Your task to perform on an android device: Open display settings Image 0: 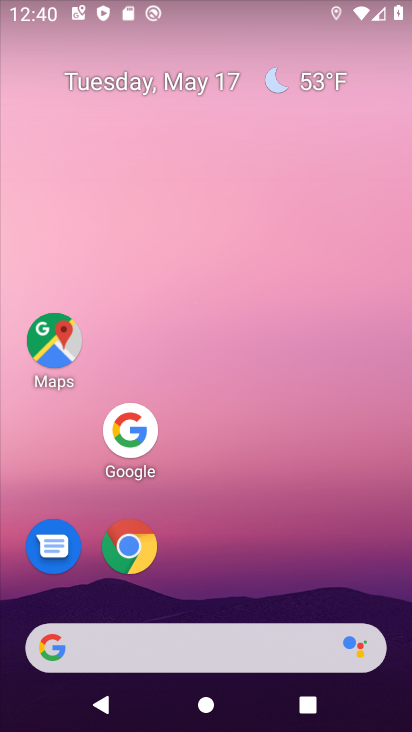
Step 0: drag from (311, 540) to (262, 105)
Your task to perform on an android device: Open display settings Image 1: 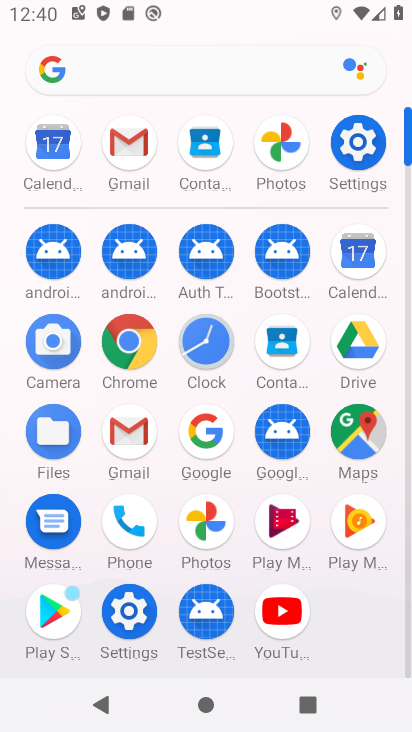
Step 1: click (362, 133)
Your task to perform on an android device: Open display settings Image 2: 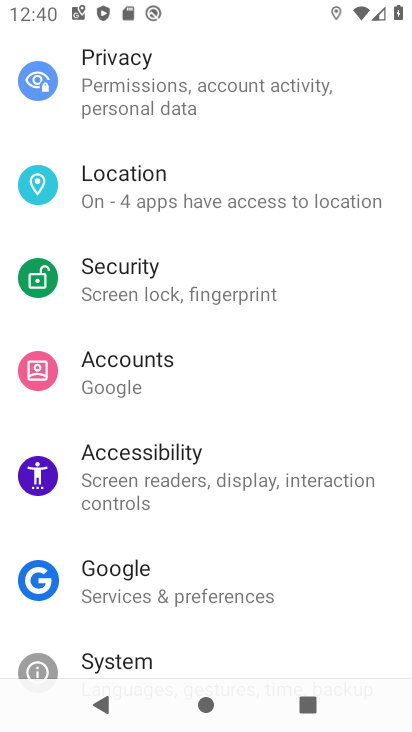
Step 2: drag from (183, 274) to (212, 608)
Your task to perform on an android device: Open display settings Image 3: 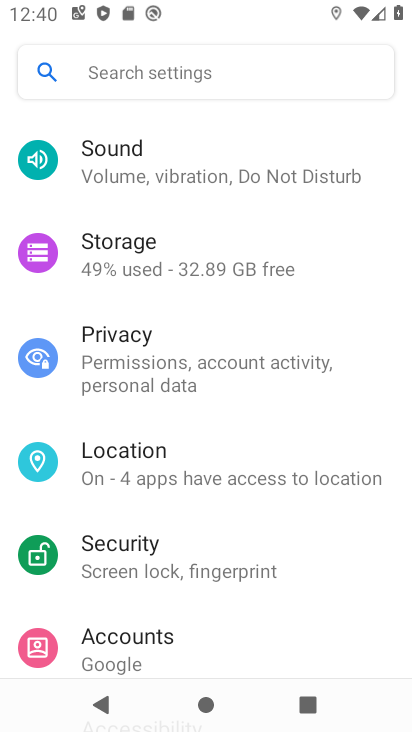
Step 3: drag from (157, 214) to (214, 593)
Your task to perform on an android device: Open display settings Image 4: 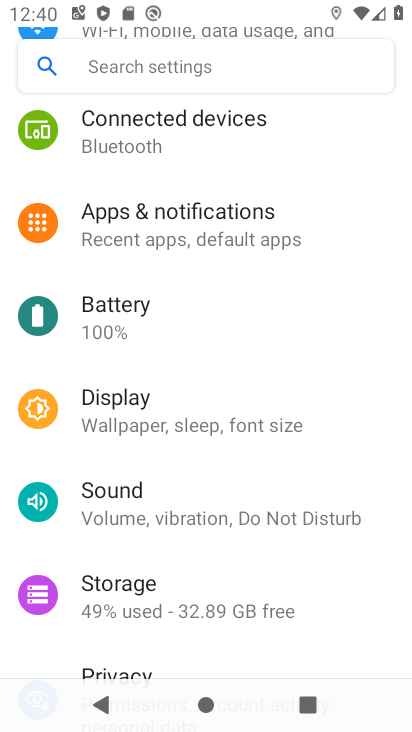
Step 4: click (157, 427)
Your task to perform on an android device: Open display settings Image 5: 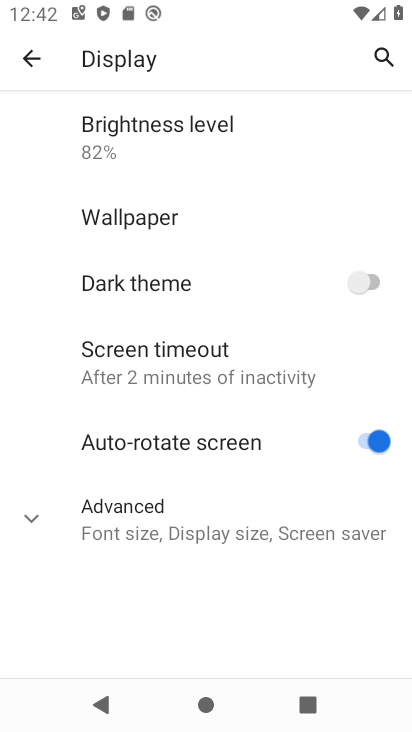
Step 5: task complete